Your task to perform on an android device: Go to location settings Image 0: 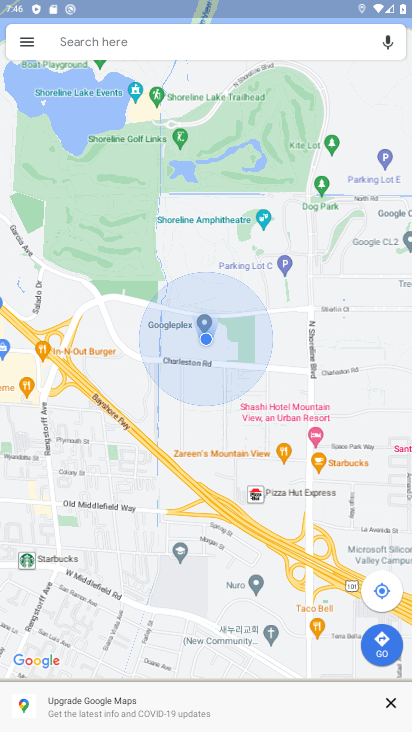
Step 0: press home button
Your task to perform on an android device: Go to location settings Image 1: 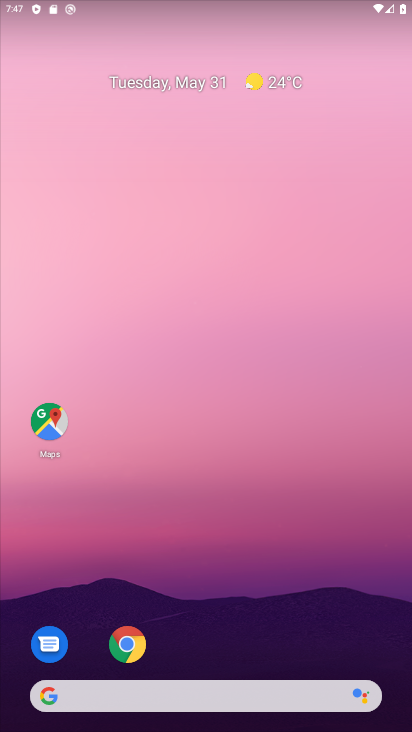
Step 1: drag from (202, 645) to (266, 191)
Your task to perform on an android device: Go to location settings Image 2: 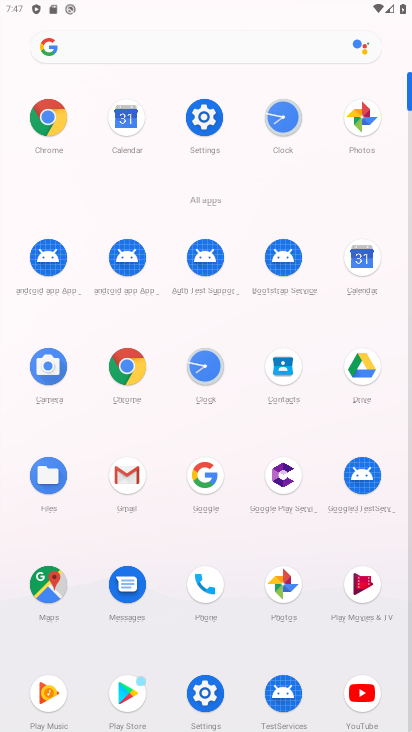
Step 2: drag from (266, 182) to (316, 254)
Your task to perform on an android device: Go to location settings Image 3: 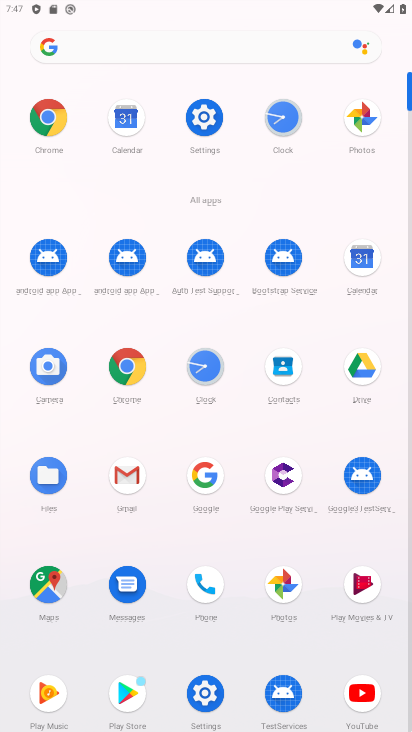
Step 3: click (212, 688)
Your task to perform on an android device: Go to location settings Image 4: 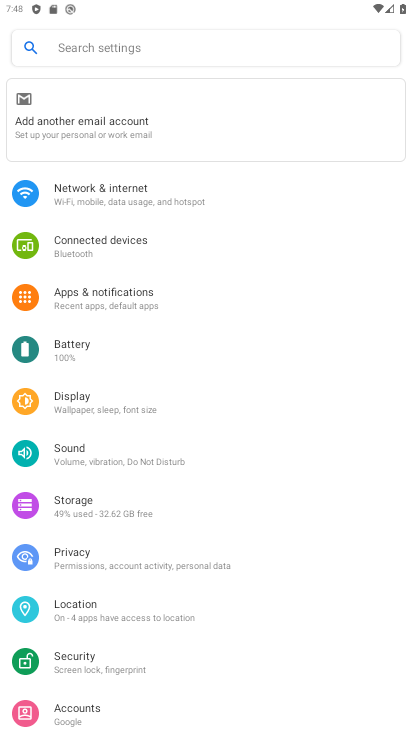
Step 4: click (128, 607)
Your task to perform on an android device: Go to location settings Image 5: 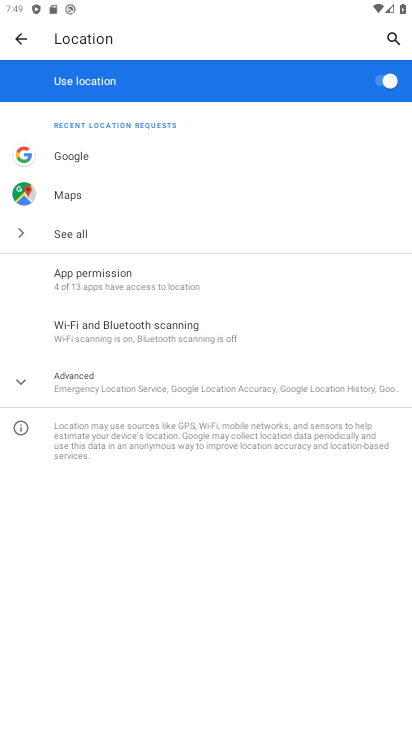
Step 5: task complete